Your task to perform on an android device: Go to eBay Image 0: 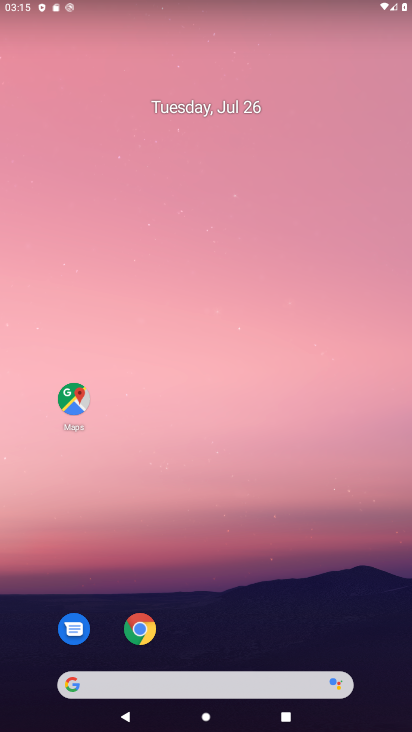
Step 0: click (140, 635)
Your task to perform on an android device: Go to eBay Image 1: 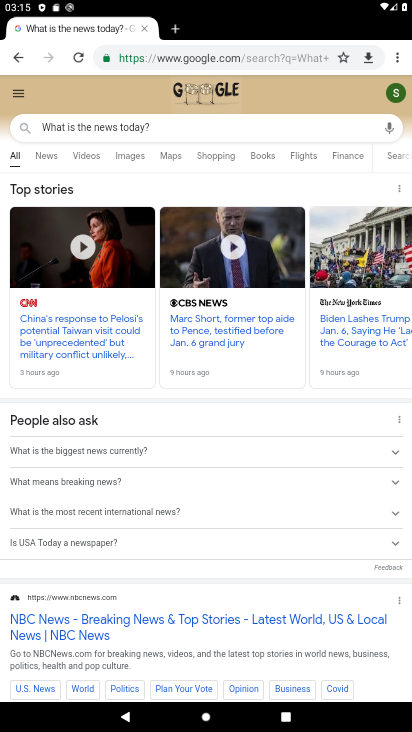
Step 1: click (157, 56)
Your task to perform on an android device: Go to eBay Image 2: 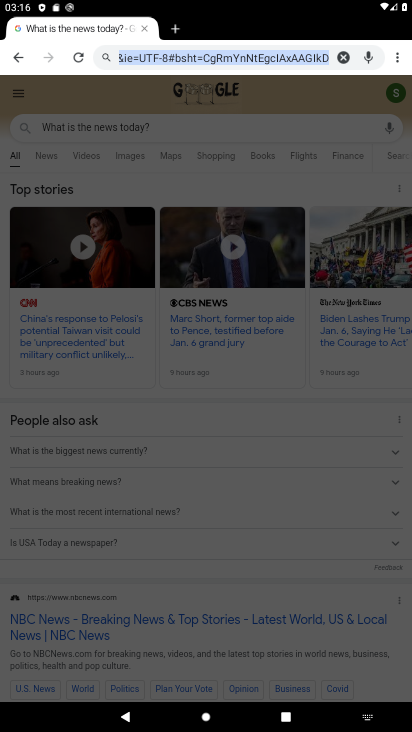
Step 2: type "eBay"
Your task to perform on an android device: Go to eBay Image 3: 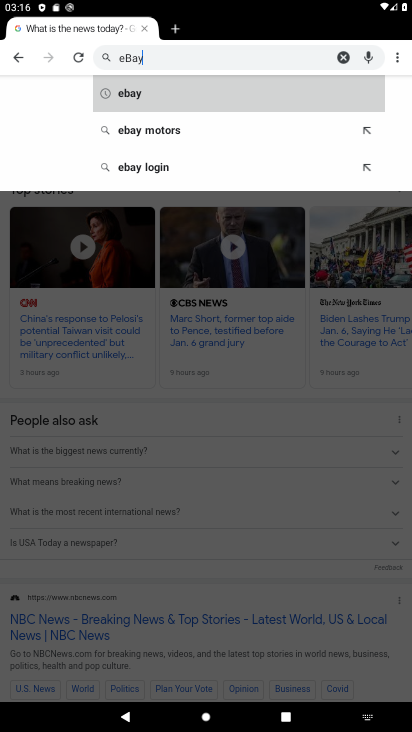
Step 3: click (249, 86)
Your task to perform on an android device: Go to eBay Image 4: 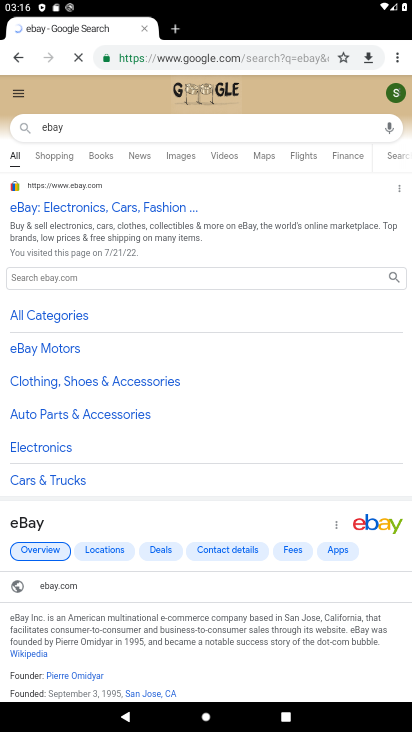
Step 4: click (154, 201)
Your task to perform on an android device: Go to eBay Image 5: 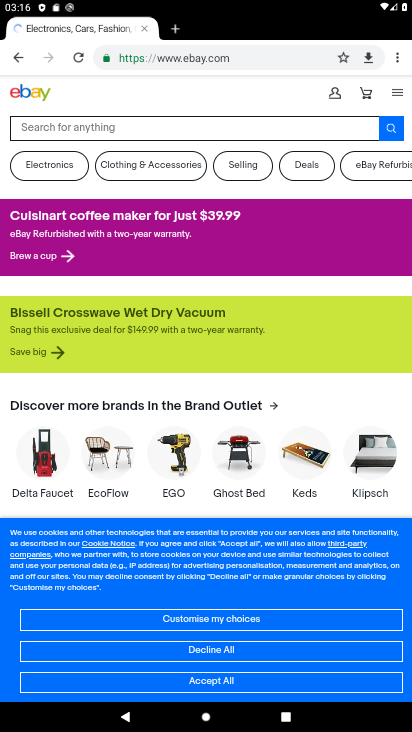
Step 5: task complete